Your task to perform on an android device: check battery use Image 0: 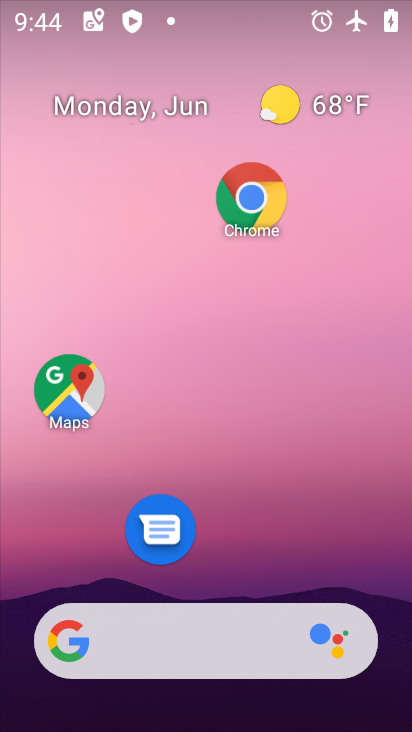
Step 0: drag from (210, 476) to (199, 153)
Your task to perform on an android device: check battery use Image 1: 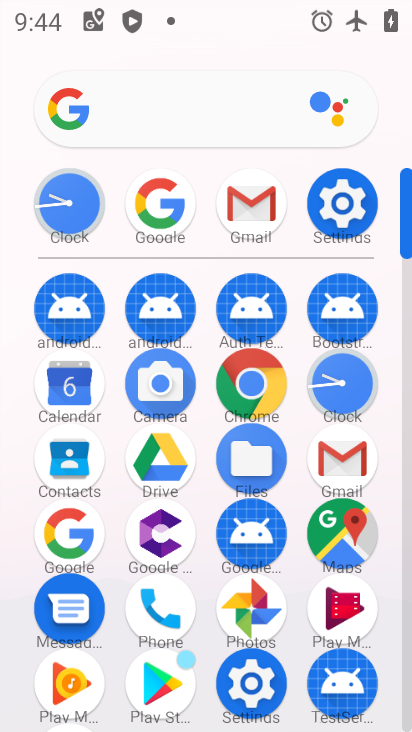
Step 1: click (337, 198)
Your task to perform on an android device: check battery use Image 2: 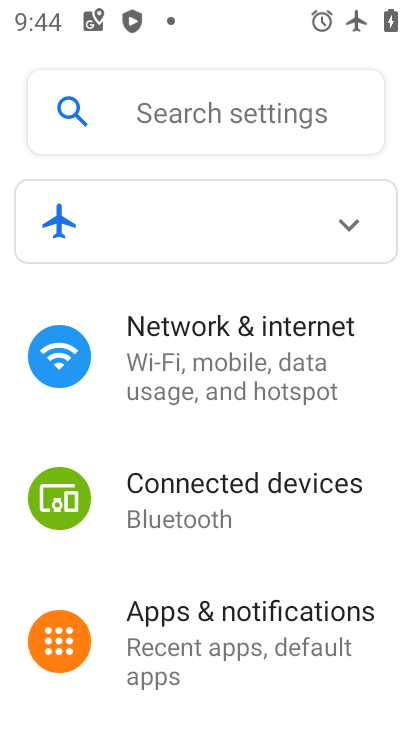
Step 2: drag from (233, 540) to (246, 241)
Your task to perform on an android device: check battery use Image 3: 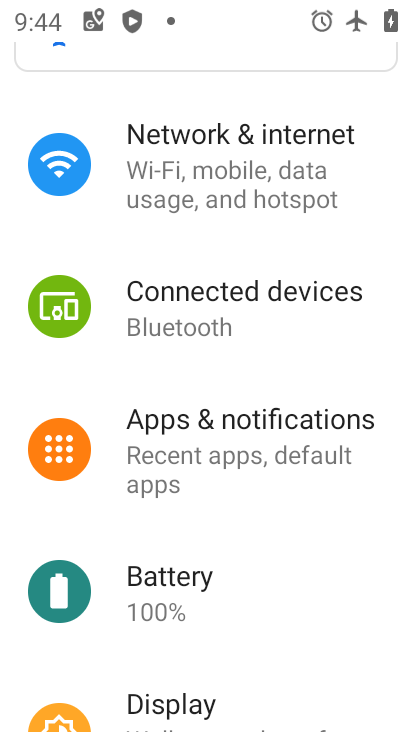
Step 3: drag from (230, 545) to (240, 325)
Your task to perform on an android device: check battery use Image 4: 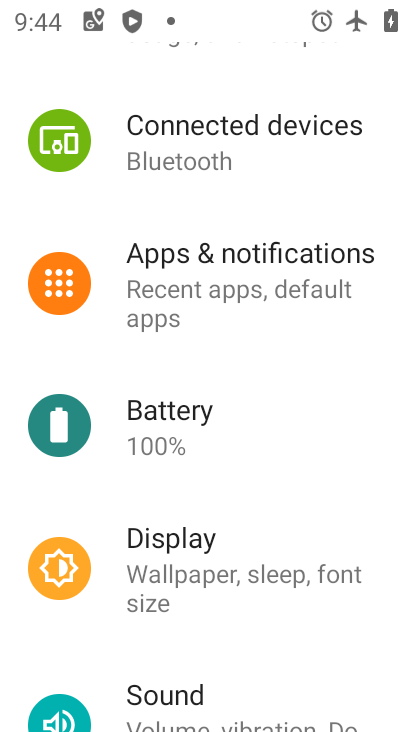
Step 4: click (184, 449)
Your task to perform on an android device: check battery use Image 5: 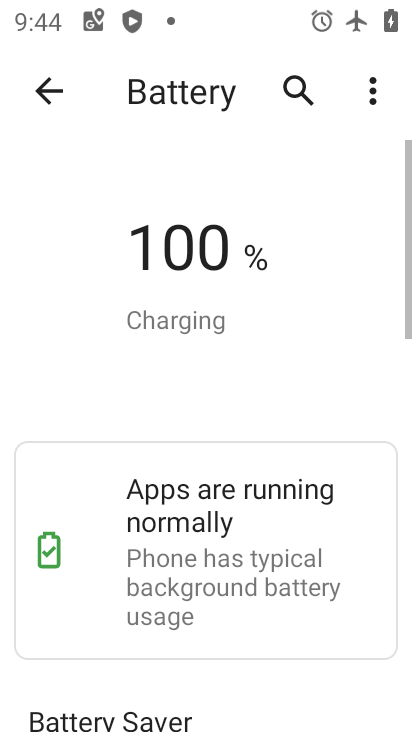
Step 5: click (360, 90)
Your task to perform on an android device: check battery use Image 6: 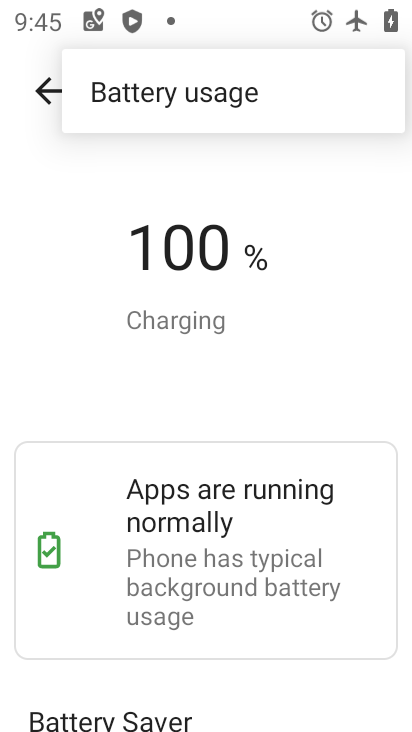
Step 6: click (293, 103)
Your task to perform on an android device: check battery use Image 7: 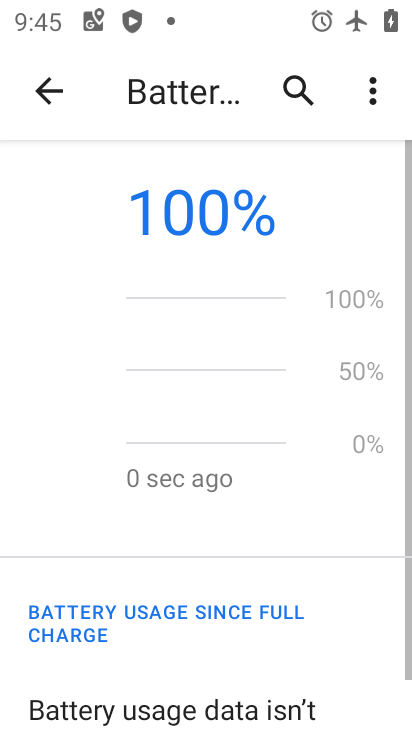
Step 7: drag from (230, 519) to (237, 222)
Your task to perform on an android device: check battery use Image 8: 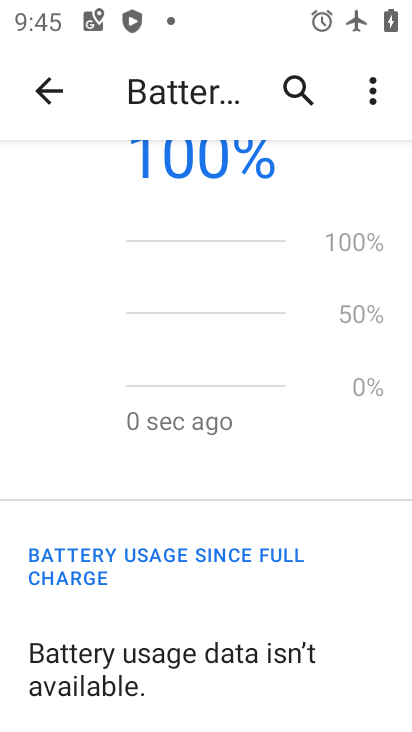
Step 8: click (366, 94)
Your task to perform on an android device: check battery use Image 9: 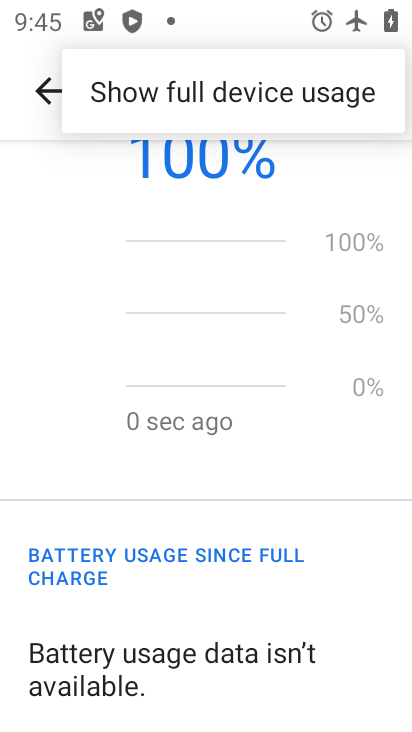
Step 9: click (224, 96)
Your task to perform on an android device: check battery use Image 10: 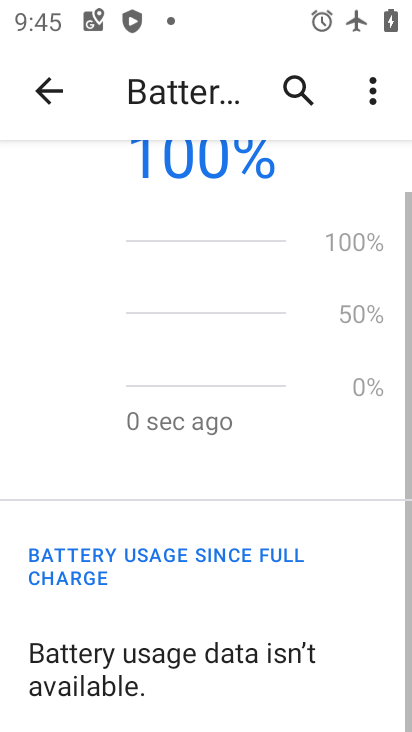
Step 10: task complete